Your task to perform on an android device: Open calendar and show me the second week of next month Image 0: 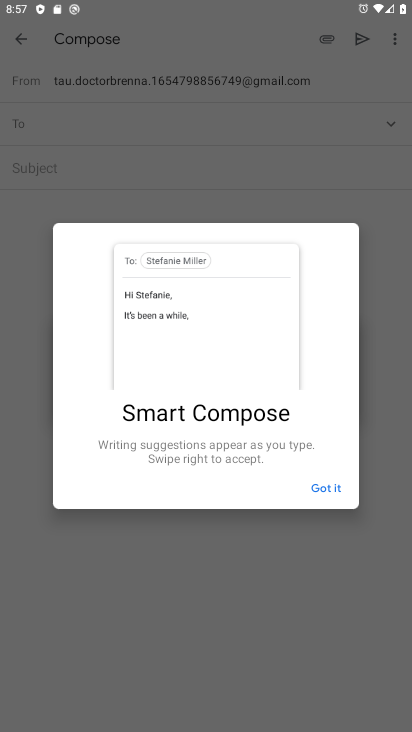
Step 0: drag from (9, 713) to (339, 49)
Your task to perform on an android device: Open calendar and show me the second week of next month Image 1: 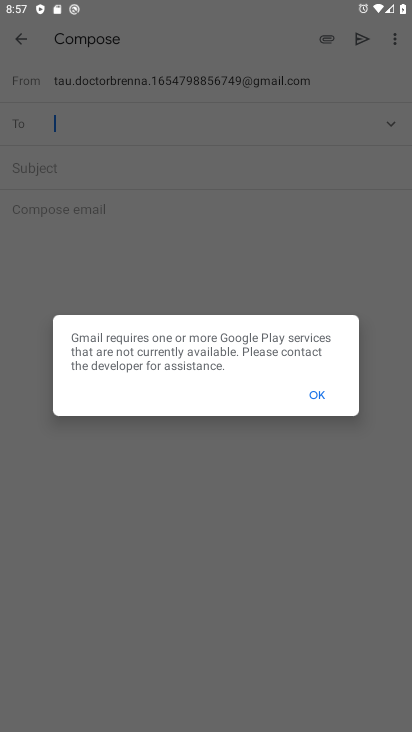
Step 1: press home button
Your task to perform on an android device: Open calendar and show me the second week of next month Image 2: 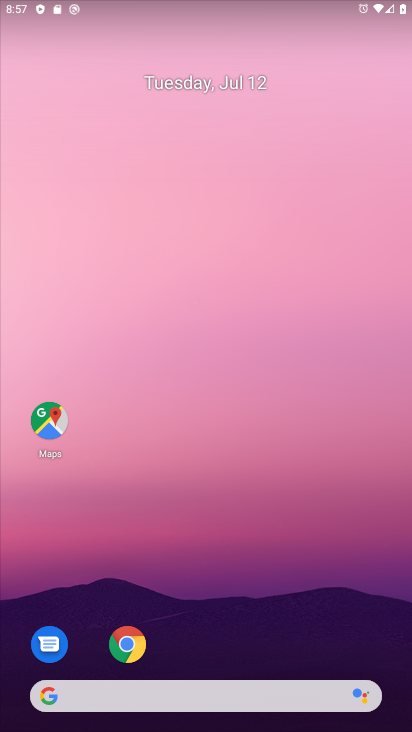
Step 2: drag from (25, 694) to (194, 197)
Your task to perform on an android device: Open calendar and show me the second week of next month Image 3: 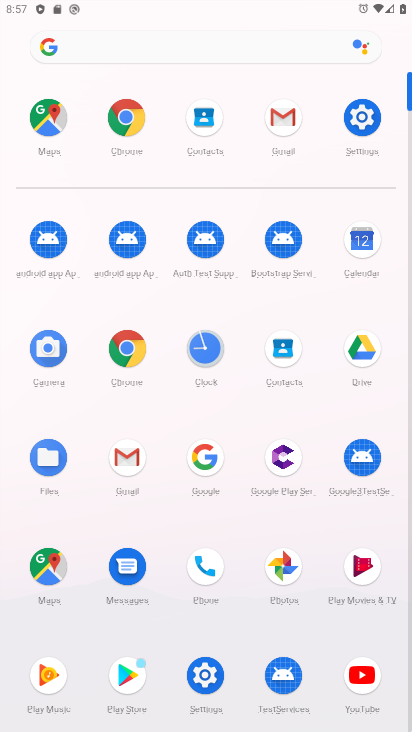
Step 3: click (357, 224)
Your task to perform on an android device: Open calendar and show me the second week of next month Image 4: 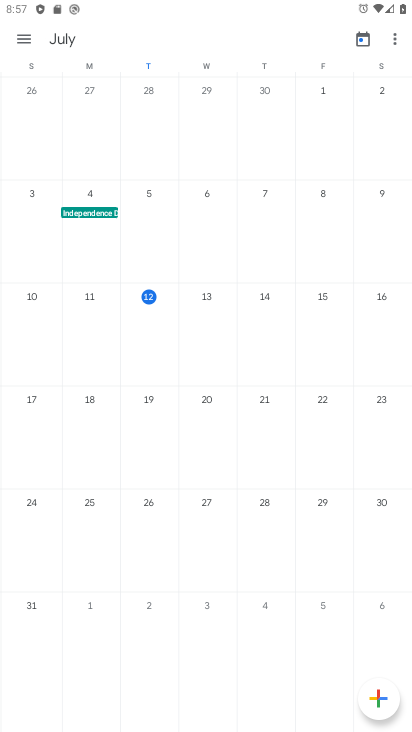
Step 4: drag from (405, 291) to (11, 327)
Your task to perform on an android device: Open calendar and show me the second week of next month Image 5: 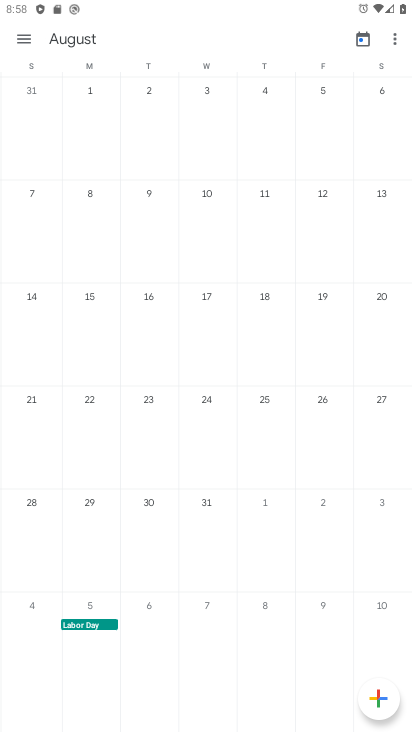
Step 5: click (89, 213)
Your task to perform on an android device: Open calendar and show me the second week of next month Image 6: 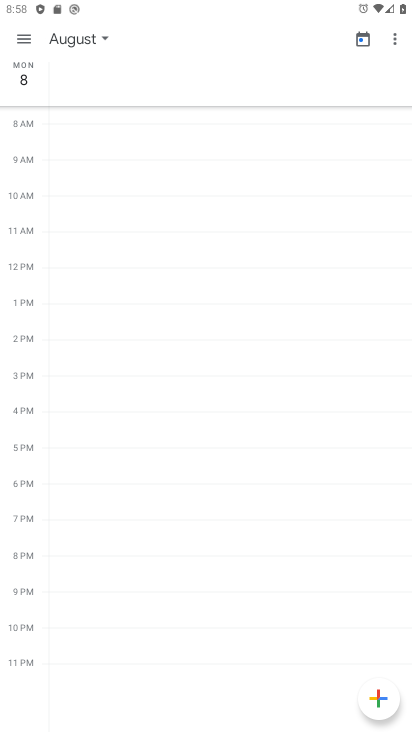
Step 6: task complete